Your task to perform on an android device: turn off translation in the chrome app Image 0: 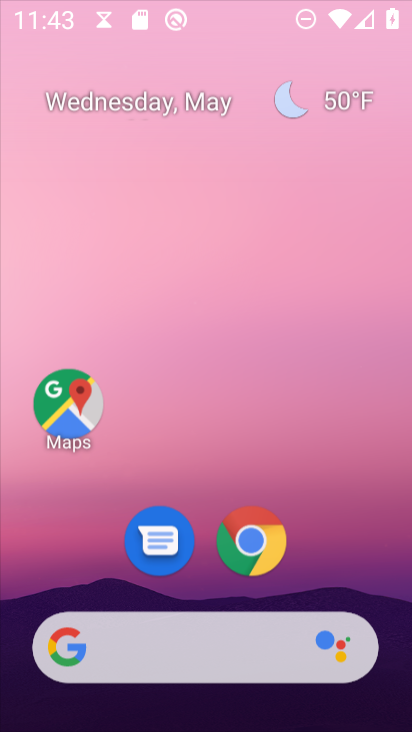
Step 0: drag from (209, 604) to (298, 21)
Your task to perform on an android device: turn off translation in the chrome app Image 1: 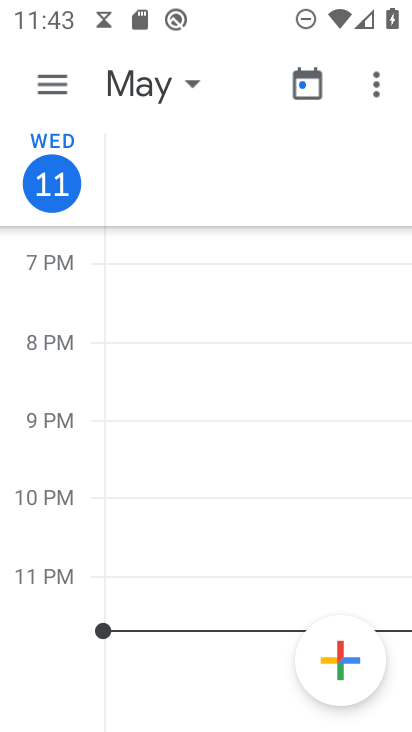
Step 1: press home button
Your task to perform on an android device: turn off translation in the chrome app Image 2: 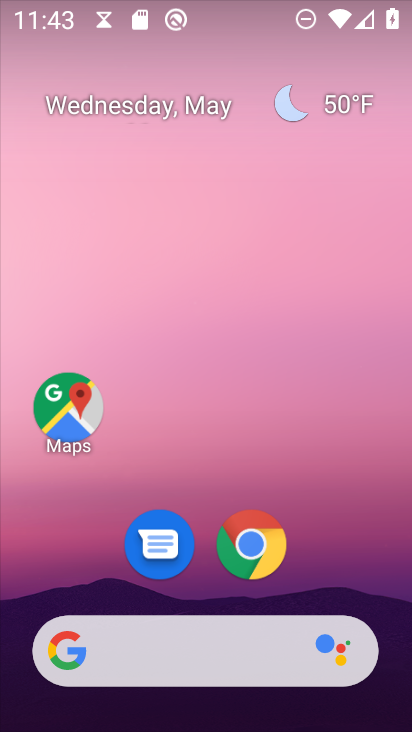
Step 2: click (258, 557)
Your task to perform on an android device: turn off translation in the chrome app Image 3: 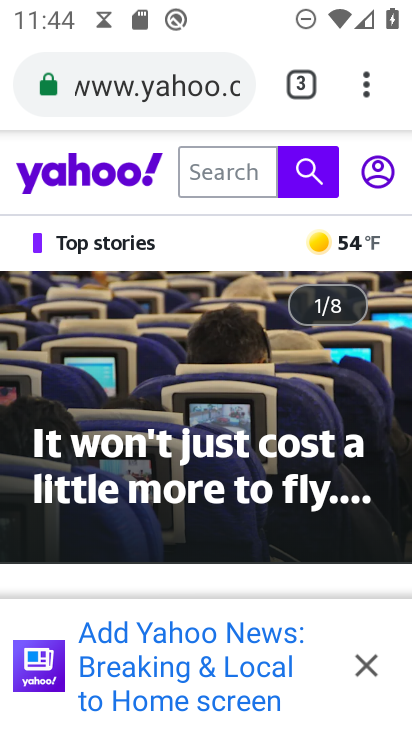
Step 3: click (379, 82)
Your task to perform on an android device: turn off translation in the chrome app Image 4: 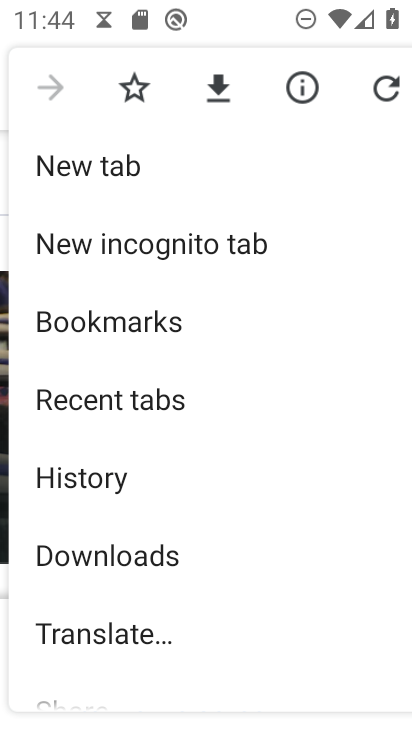
Step 4: drag from (40, 632) to (158, 104)
Your task to perform on an android device: turn off translation in the chrome app Image 5: 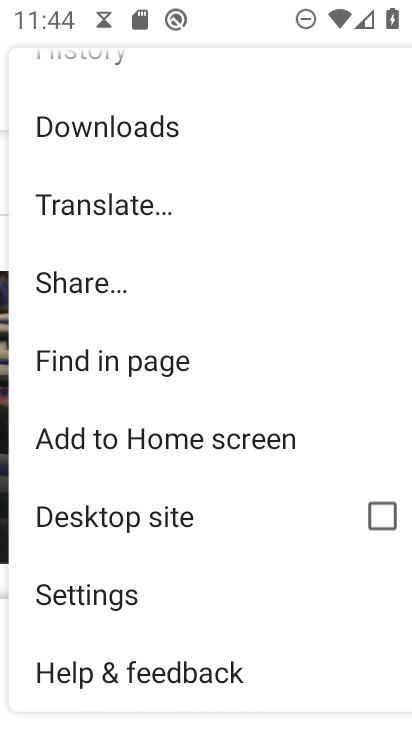
Step 5: click (140, 618)
Your task to perform on an android device: turn off translation in the chrome app Image 6: 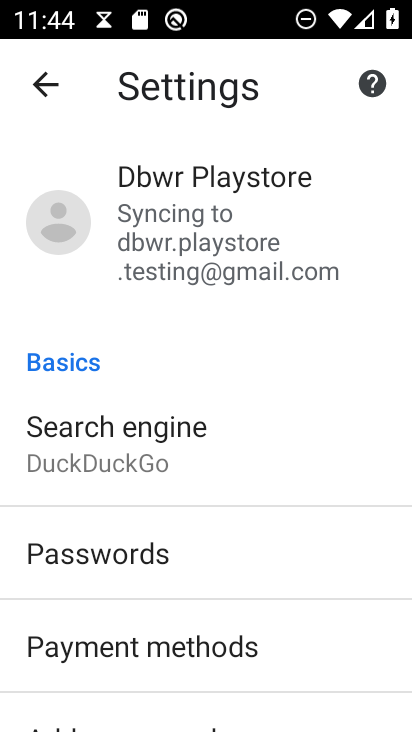
Step 6: drag from (116, 658) to (240, 337)
Your task to perform on an android device: turn off translation in the chrome app Image 7: 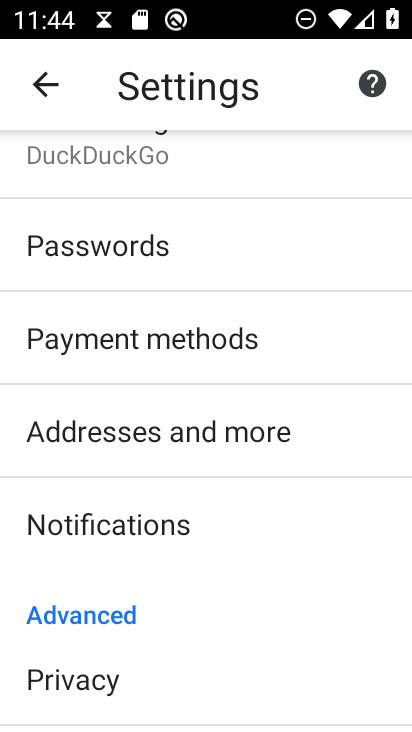
Step 7: drag from (105, 669) to (162, 371)
Your task to perform on an android device: turn off translation in the chrome app Image 8: 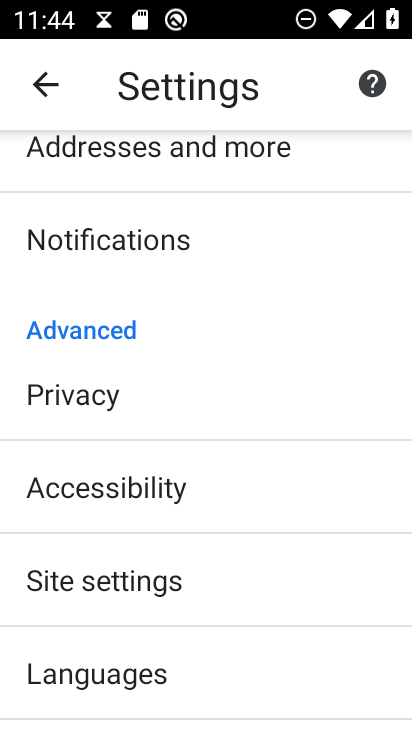
Step 8: click (98, 681)
Your task to perform on an android device: turn off translation in the chrome app Image 9: 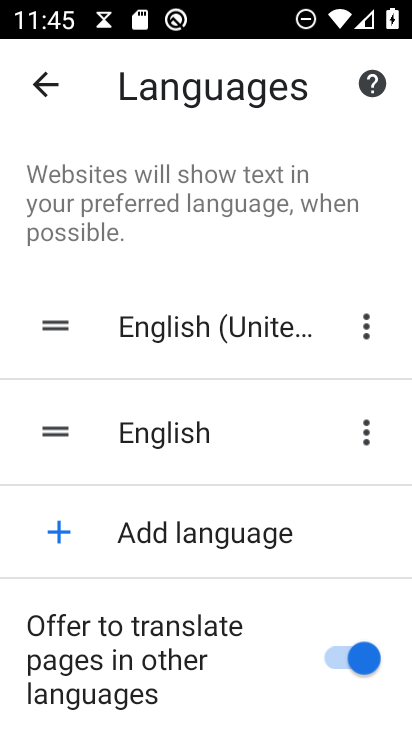
Step 9: click (333, 653)
Your task to perform on an android device: turn off translation in the chrome app Image 10: 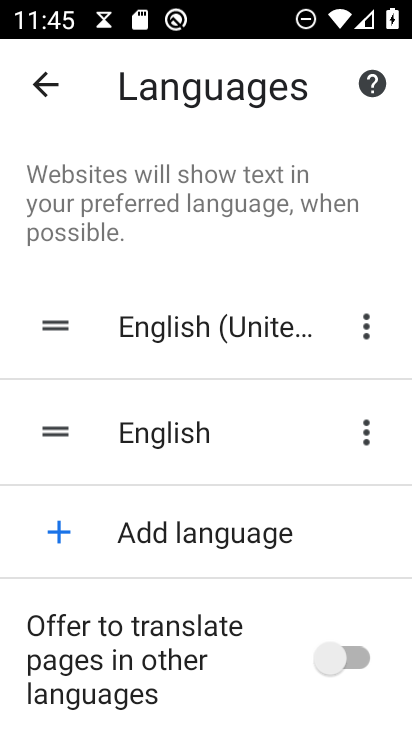
Step 10: task complete